Your task to perform on an android device: Do I have any events today? Image 0: 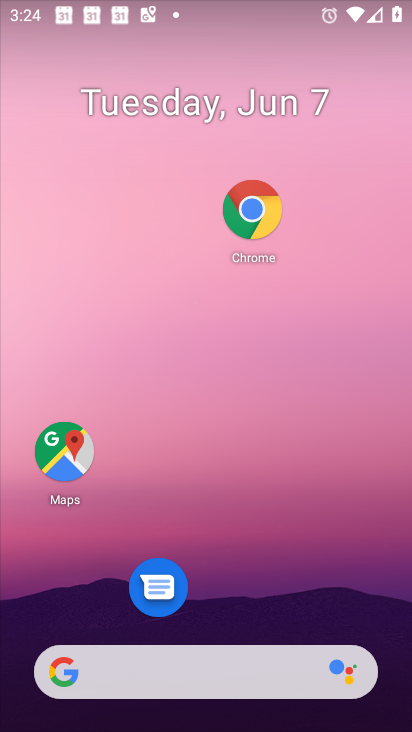
Step 0: drag from (272, 673) to (234, 215)
Your task to perform on an android device: Do I have any events today? Image 1: 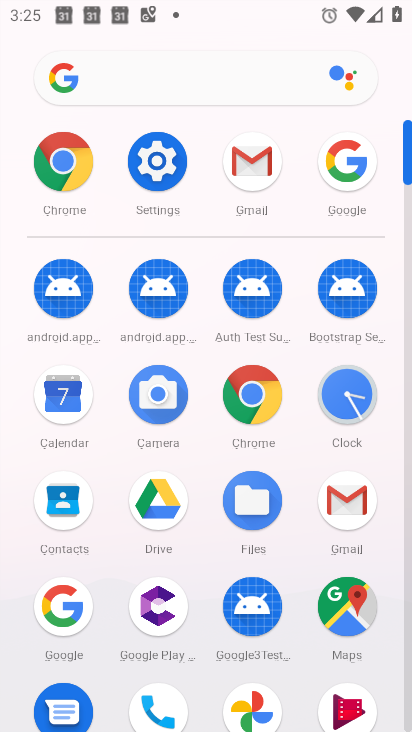
Step 1: click (65, 406)
Your task to perform on an android device: Do I have any events today? Image 2: 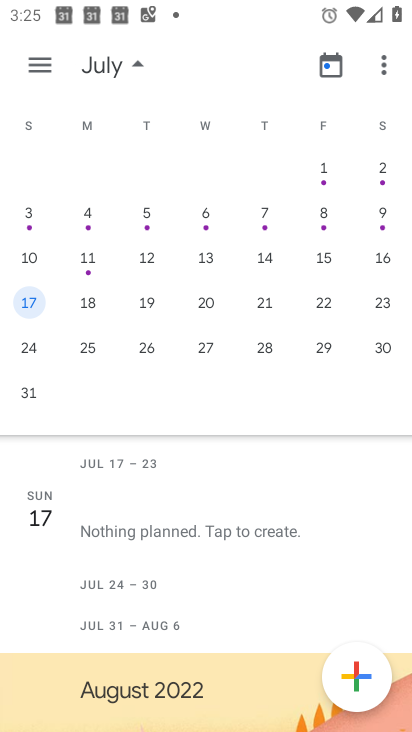
Step 2: drag from (113, 288) to (401, 340)
Your task to perform on an android device: Do I have any events today? Image 3: 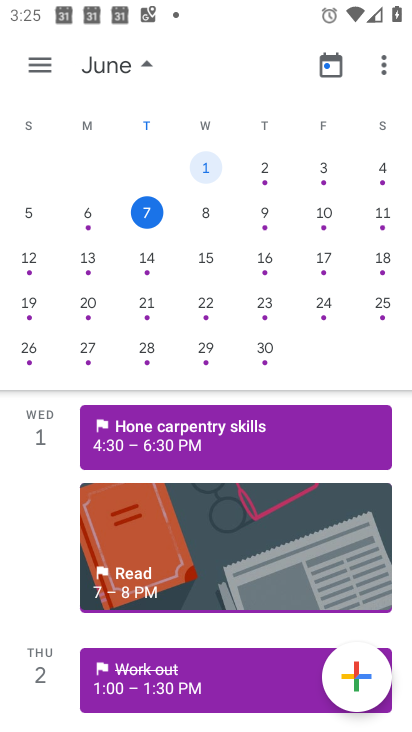
Step 3: click (151, 219)
Your task to perform on an android device: Do I have any events today? Image 4: 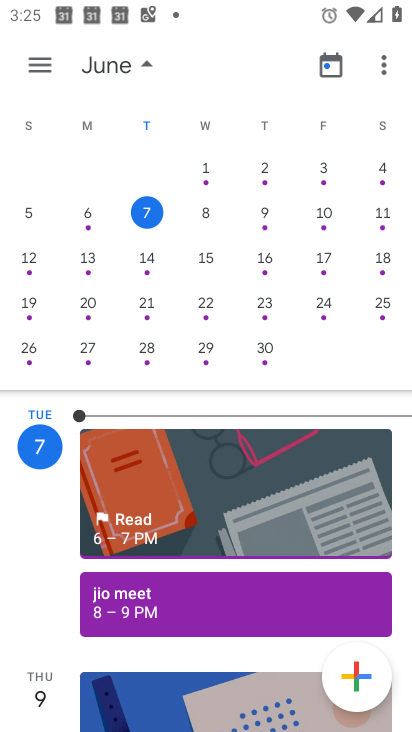
Step 4: click (52, 74)
Your task to perform on an android device: Do I have any events today? Image 5: 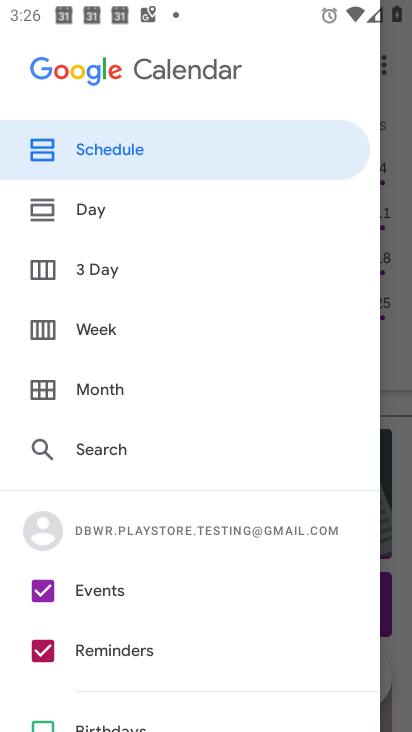
Step 5: click (407, 269)
Your task to perform on an android device: Do I have any events today? Image 6: 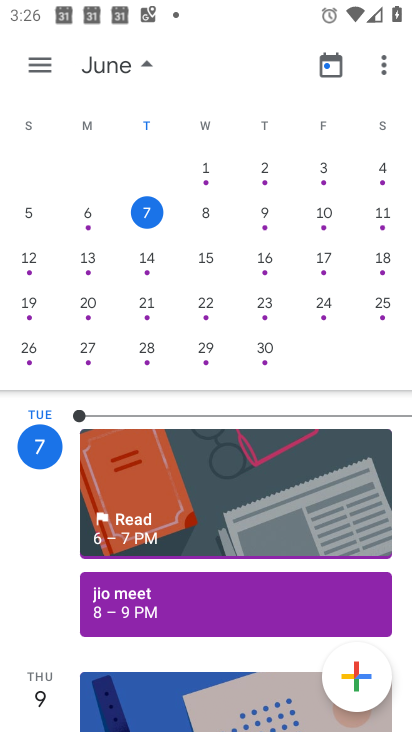
Step 6: task complete